Your task to perform on an android device: delete a single message in the gmail app Image 0: 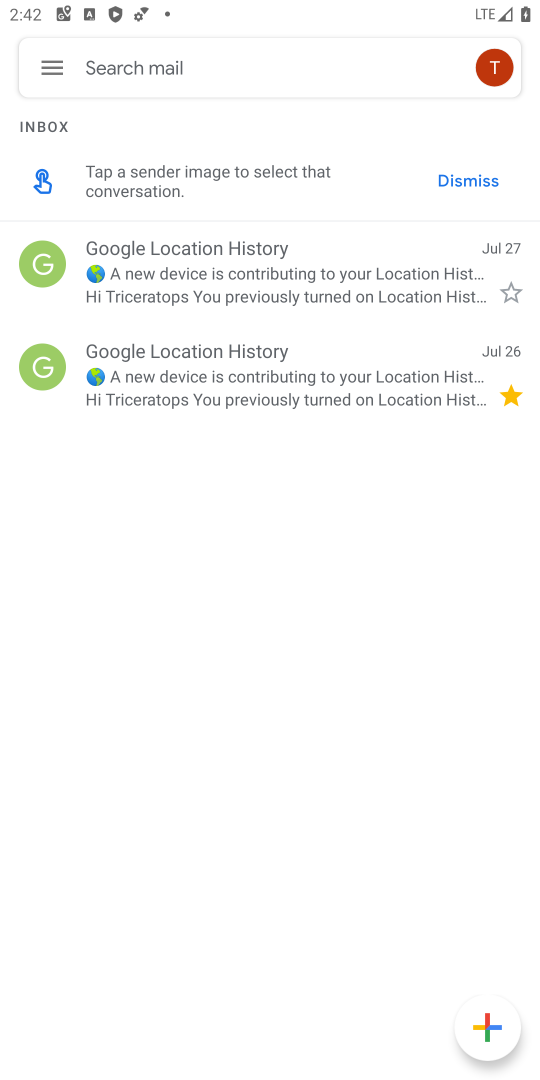
Step 0: click (274, 272)
Your task to perform on an android device: delete a single message in the gmail app Image 1: 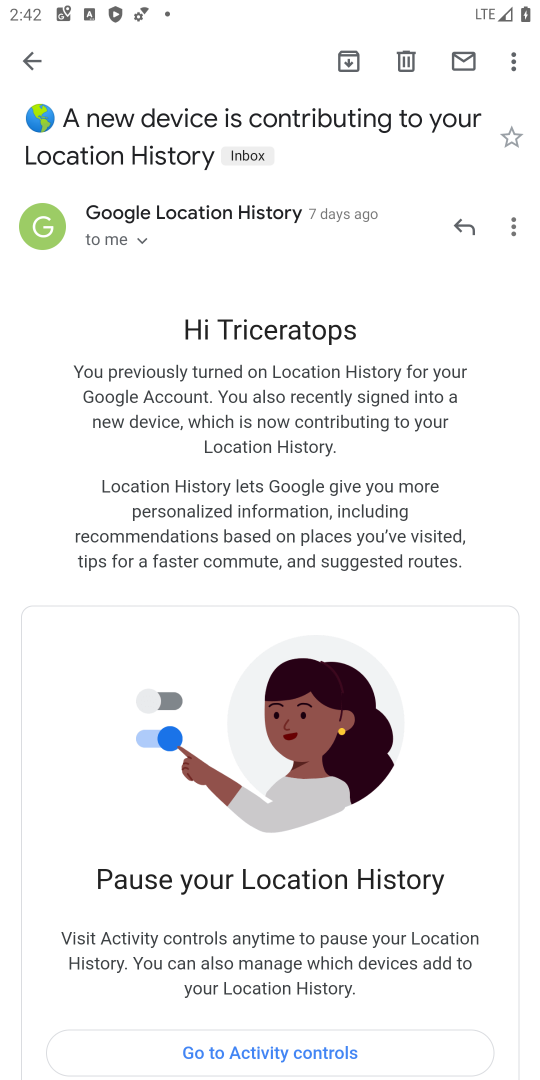
Step 1: click (410, 59)
Your task to perform on an android device: delete a single message in the gmail app Image 2: 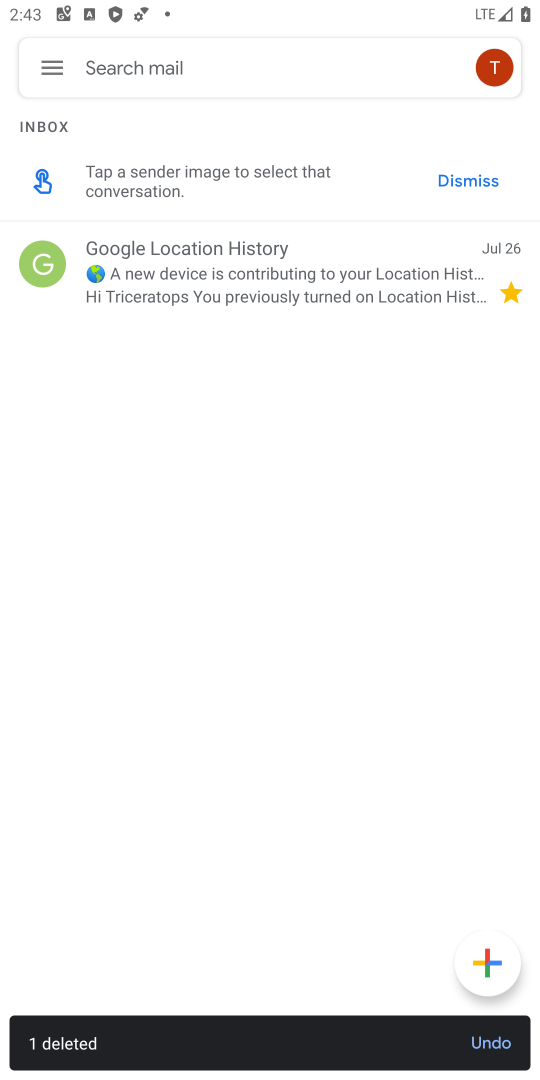
Step 2: task complete